Your task to perform on an android device: Open Google Chrome and click the shortcut for Amazon.com Image 0: 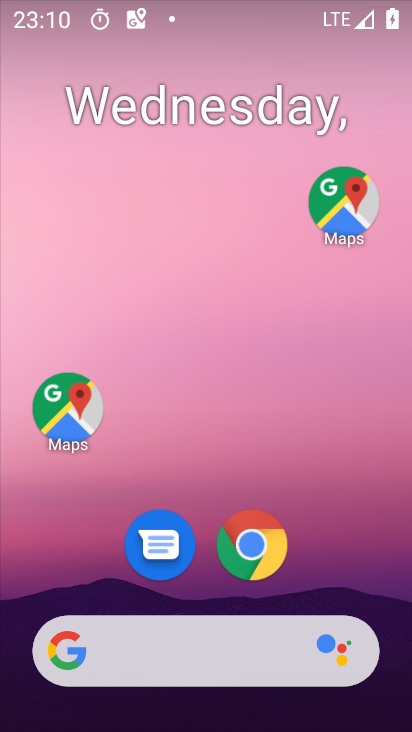
Step 0: click (244, 549)
Your task to perform on an android device: Open Google Chrome and click the shortcut for Amazon.com Image 1: 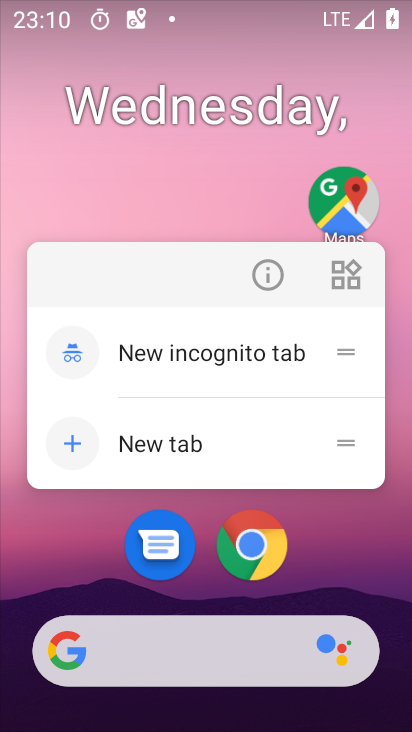
Step 1: click (244, 549)
Your task to perform on an android device: Open Google Chrome and click the shortcut for Amazon.com Image 2: 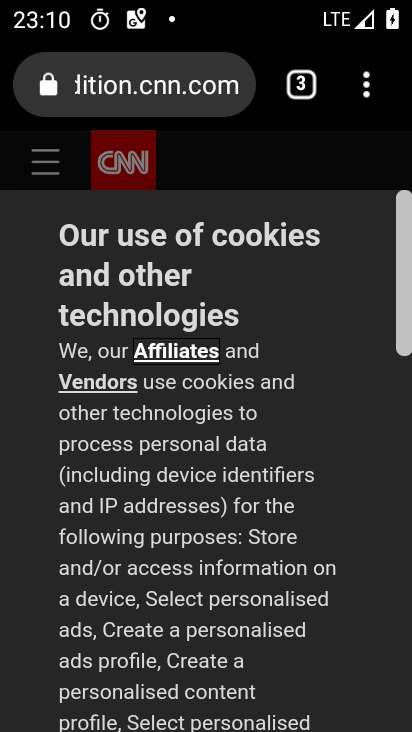
Step 2: click (363, 98)
Your task to perform on an android device: Open Google Chrome and click the shortcut for Amazon.com Image 3: 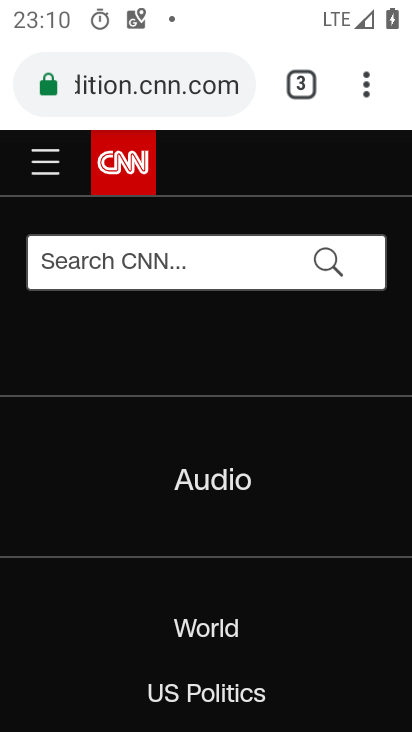
Step 3: click (376, 82)
Your task to perform on an android device: Open Google Chrome and click the shortcut for Amazon.com Image 4: 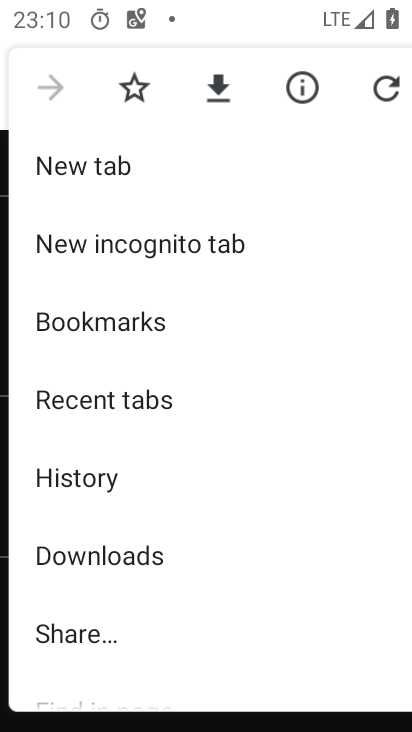
Step 4: click (136, 169)
Your task to perform on an android device: Open Google Chrome and click the shortcut for Amazon.com Image 5: 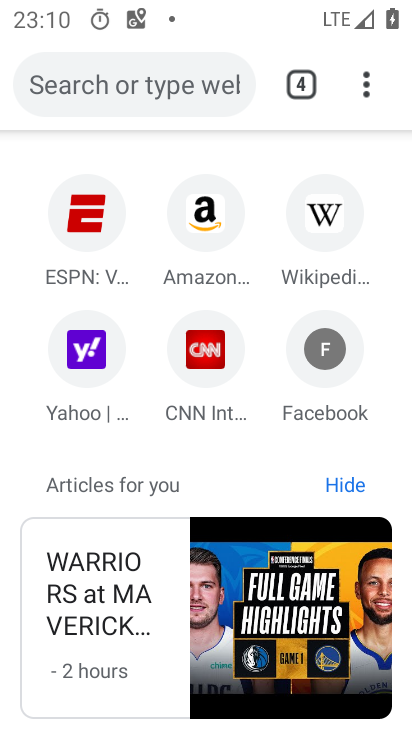
Step 5: click (214, 227)
Your task to perform on an android device: Open Google Chrome and click the shortcut for Amazon.com Image 6: 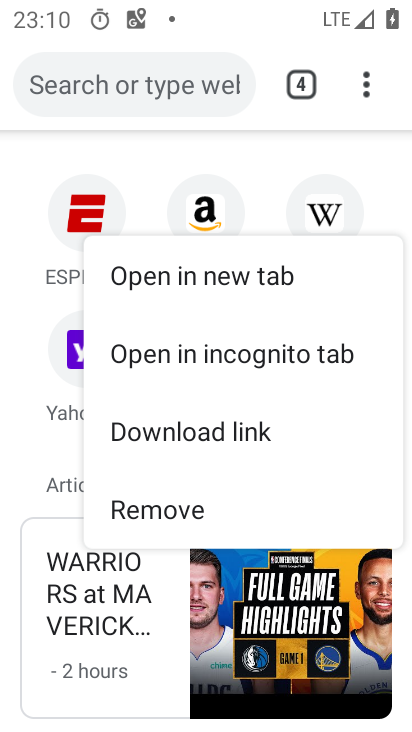
Step 6: click (205, 217)
Your task to perform on an android device: Open Google Chrome and click the shortcut for Amazon.com Image 7: 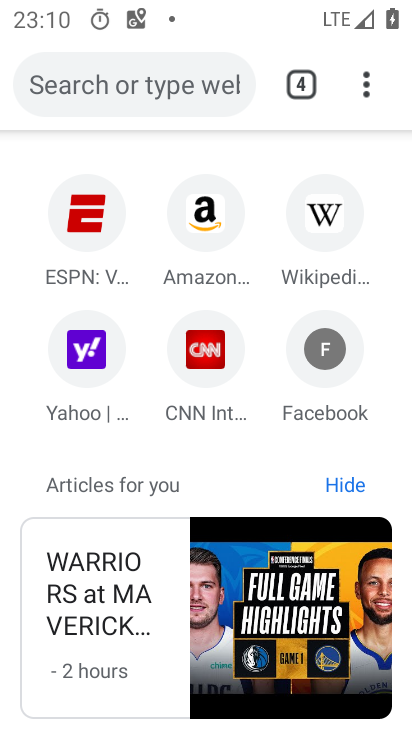
Step 7: click (205, 216)
Your task to perform on an android device: Open Google Chrome and click the shortcut for Amazon.com Image 8: 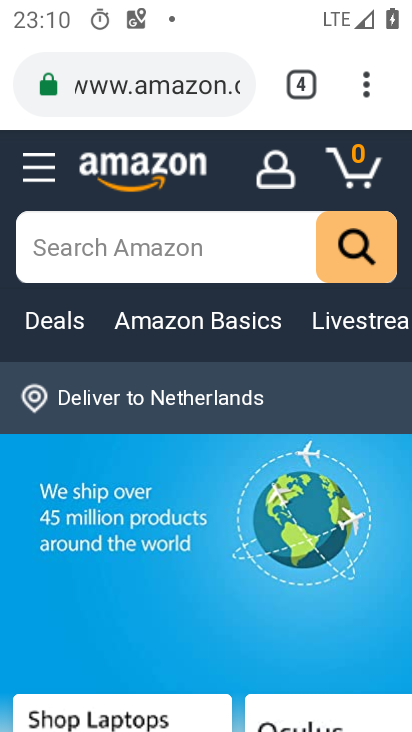
Step 8: task complete